Your task to perform on an android device: open app "Paramount+ | Peak Streaming" (install if not already installed), go to login, and select forgot password Image 0: 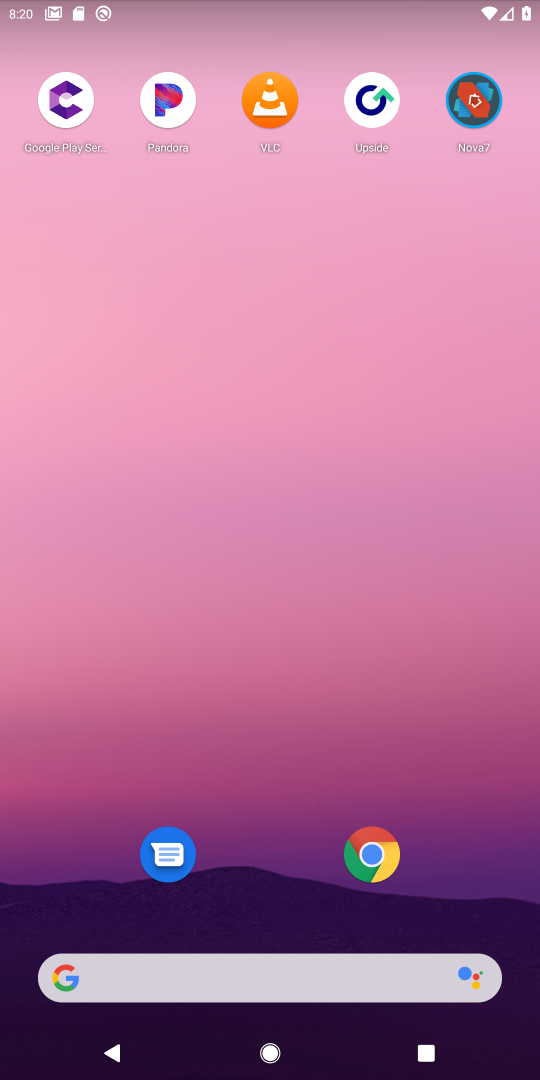
Step 0: drag from (323, 923) to (312, 83)
Your task to perform on an android device: open app "Paramount+ | Peak Streaming" (install if not already installed), go to login, and select forgot password Image 1: 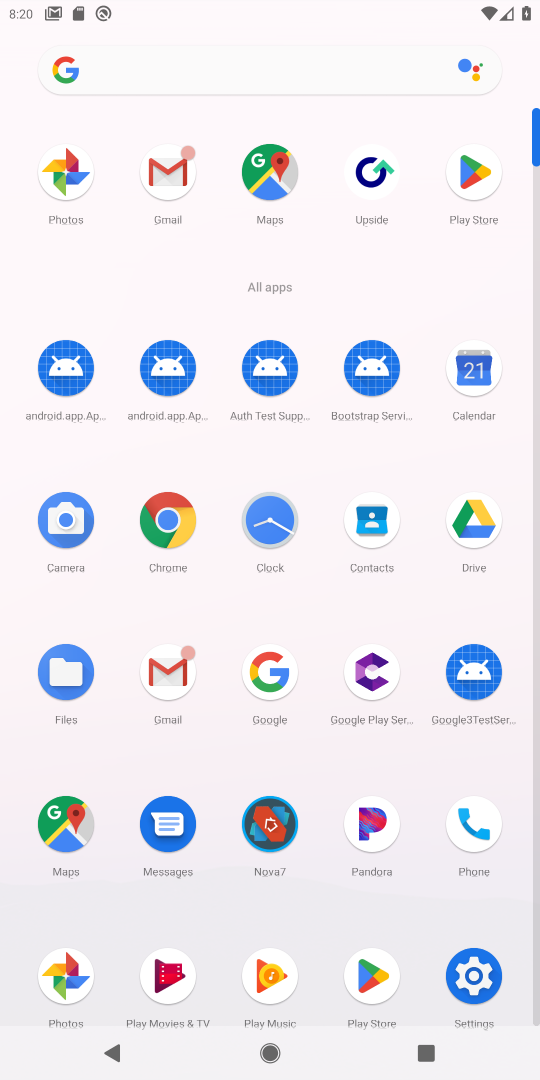
Step 1: click (461, 165)
Your task to perform on an android device: open app "Paramount+ | Peak Streaming" (install if not already installed), go to login, and select forgot password Image 2: 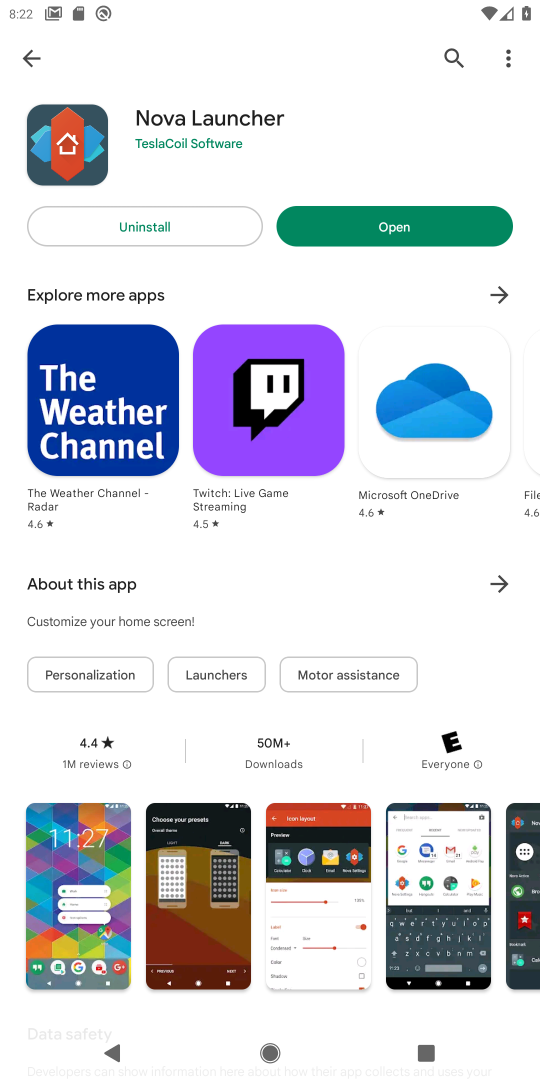
Step 2: click (444, 65)
Your task to perform on an android device: open app "Paramount+ | Peak Streaming" (install if not already installed), go to login, and select forgot password Image 3: 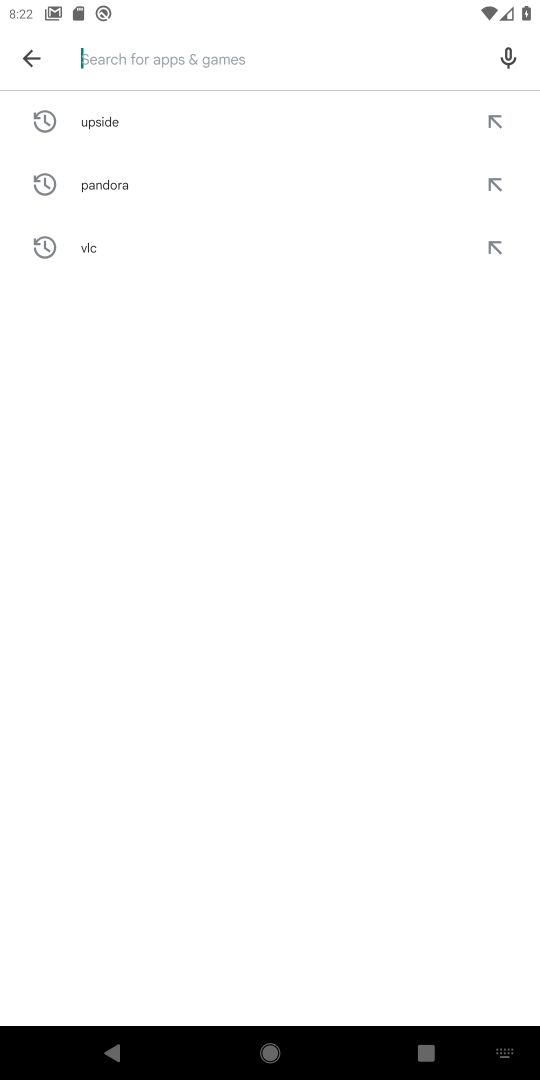
Step 3: type "paramount"
Your task to perform on an android device: open app "Paramount+ | Peak Streaming" (install if not already installed), go to login, and select forgot password Image 4: 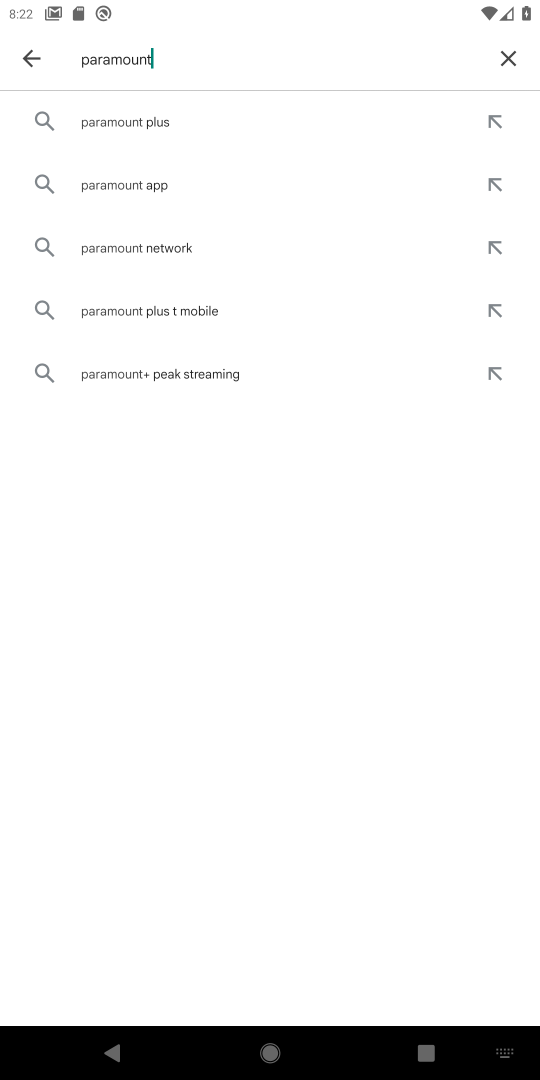
Step 4: click (88, 129)
Your task to perform on an android device: open app "Paramount+ | Peak Streaming" (install if not already installed), go to login, and select forgot password Image 5: 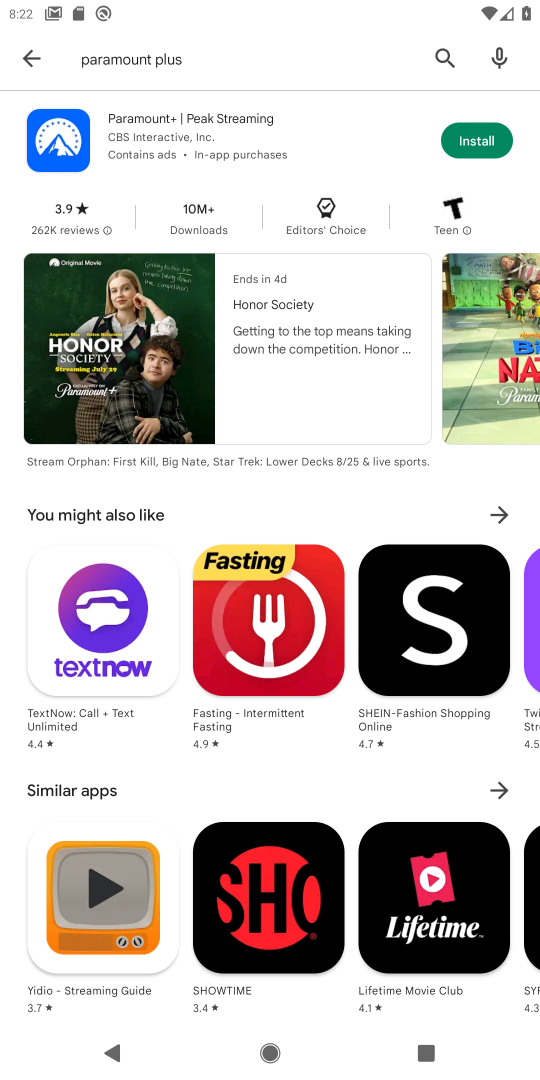
Step 5: click (498, 121)
Your task to perform on an android device: open app "Paramount+ | Peak Streaming" (install if not already installed), go to login, and select forgot password Image 6: 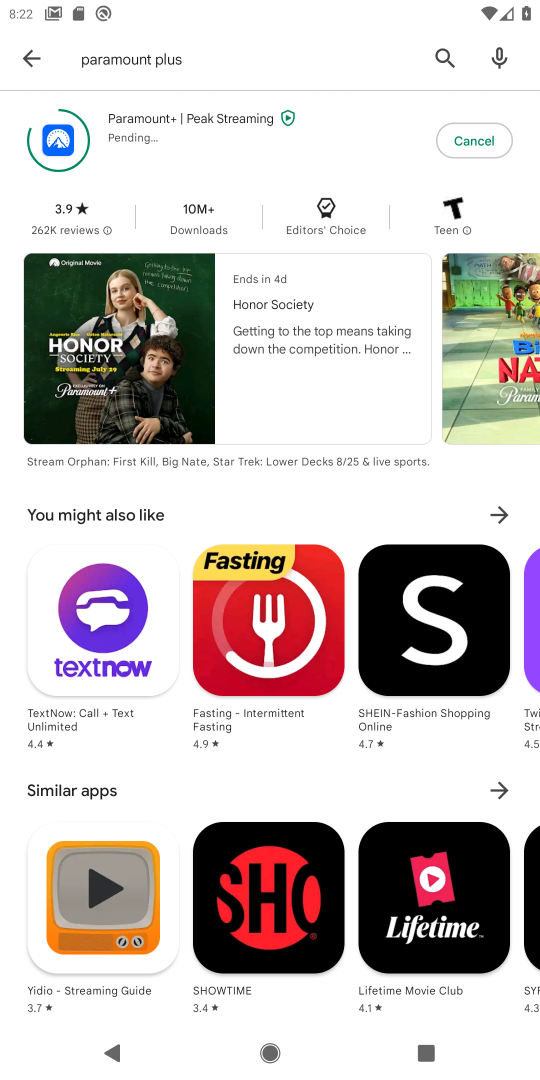
Step 6: task complete